Your task to perform on an android device: open app "Adobe Acrobat Reader" Image 0: 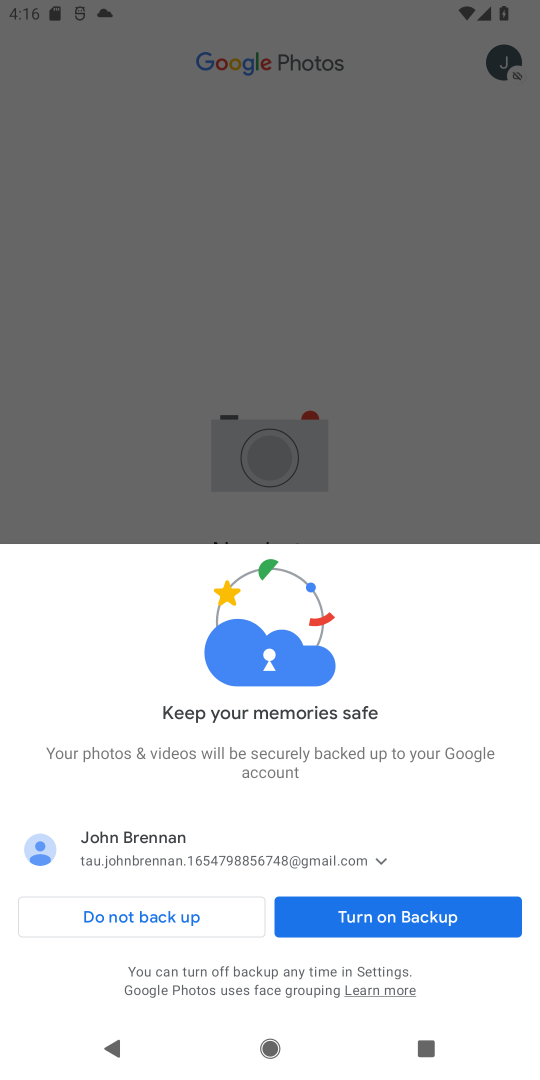
Step 0: press home button
Your task to perform on an android device: open app "Adobe Acrobat Reader" Image 1: 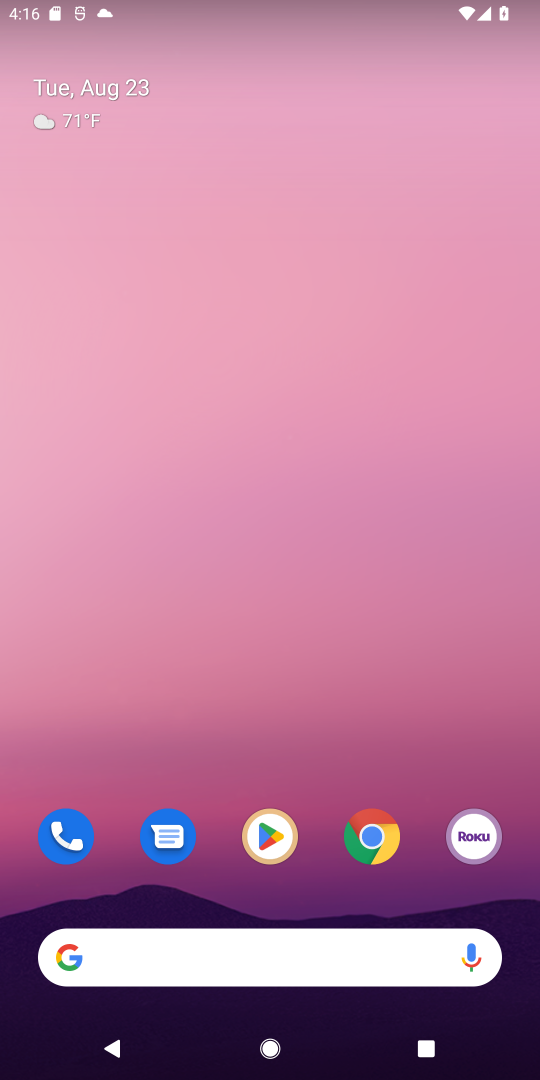
Step 1: click (275, 839)
Your task to perform on an android device: open app "Adobe Acrobat Reader" Image 2: 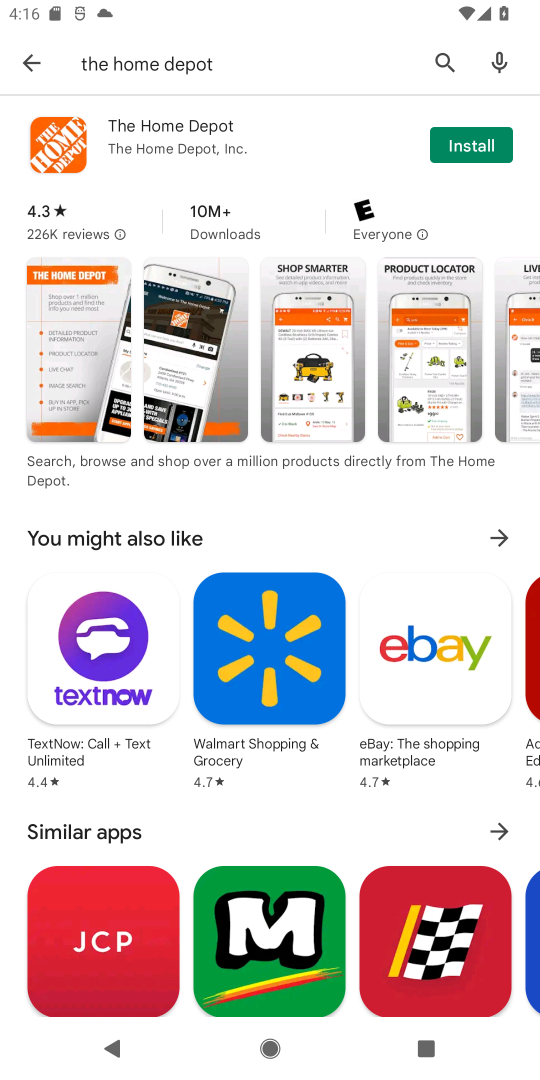
Step 2: click (440, 59)
Your task to perform on an android device: open app "Adobe Acrobat Reader" Image 3: 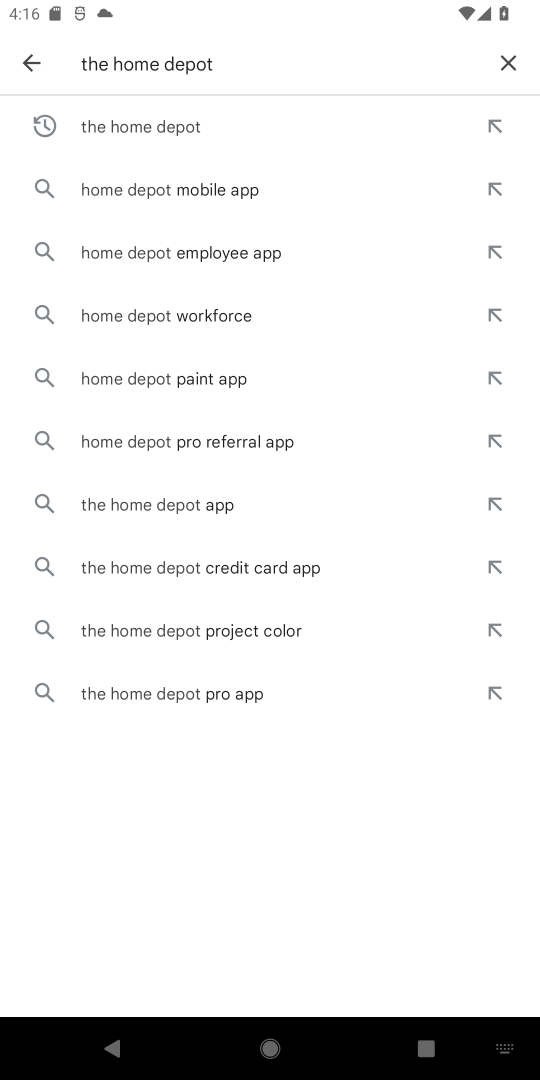
Step 3: click (507, 58)
Your task to perform on an android device: open app "Adobe Acrobat Reader" Image 4: 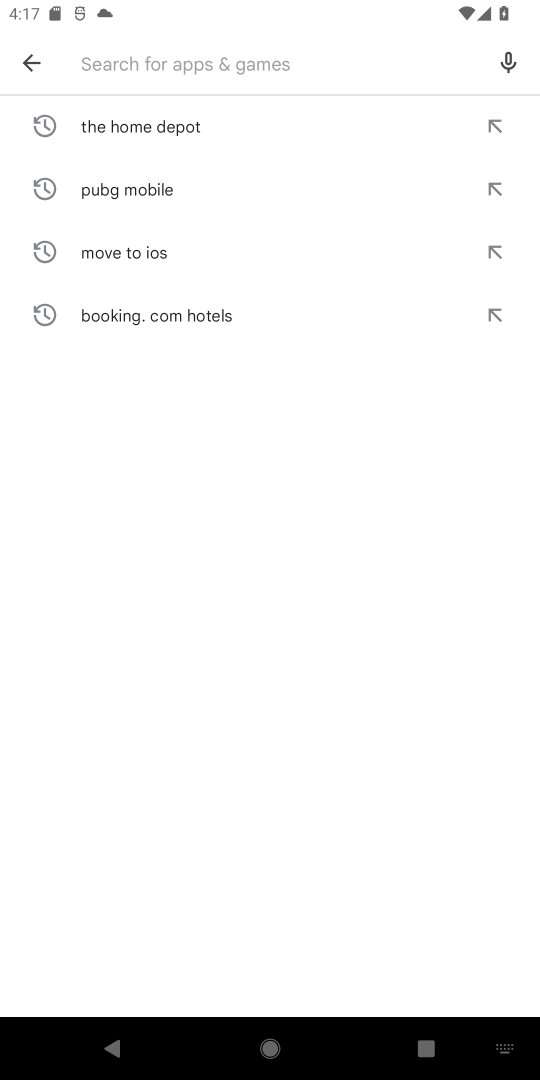
Step 4: type "Adobe Acrobat Reader"
Your task to perform on an android device: open app "Adobe Acrobat Reader" Image 5: 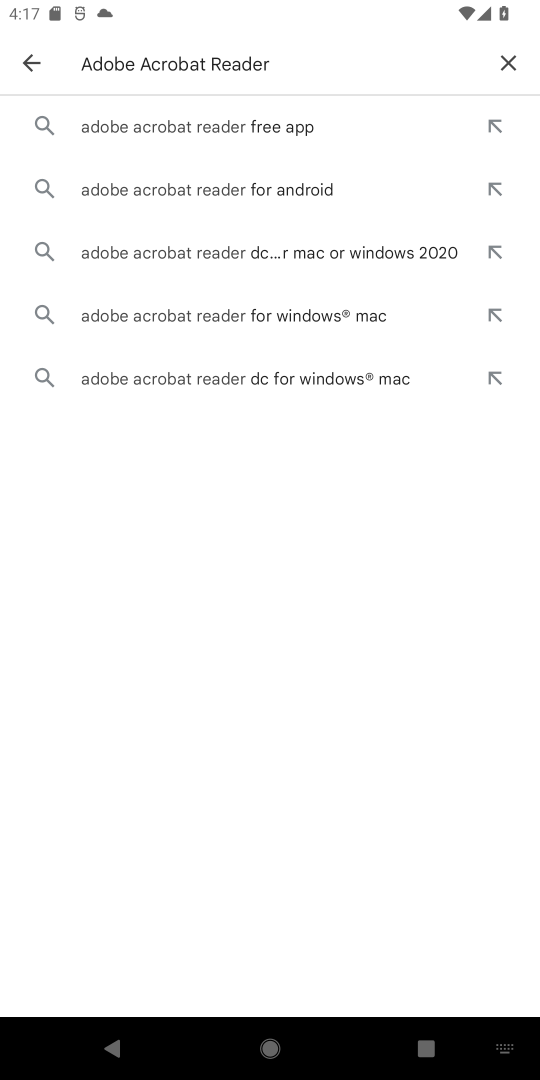
Step 5: click (226, 113)
Your task to perform on an android device: open app "Adobe Acrobat Reader" Image 6: 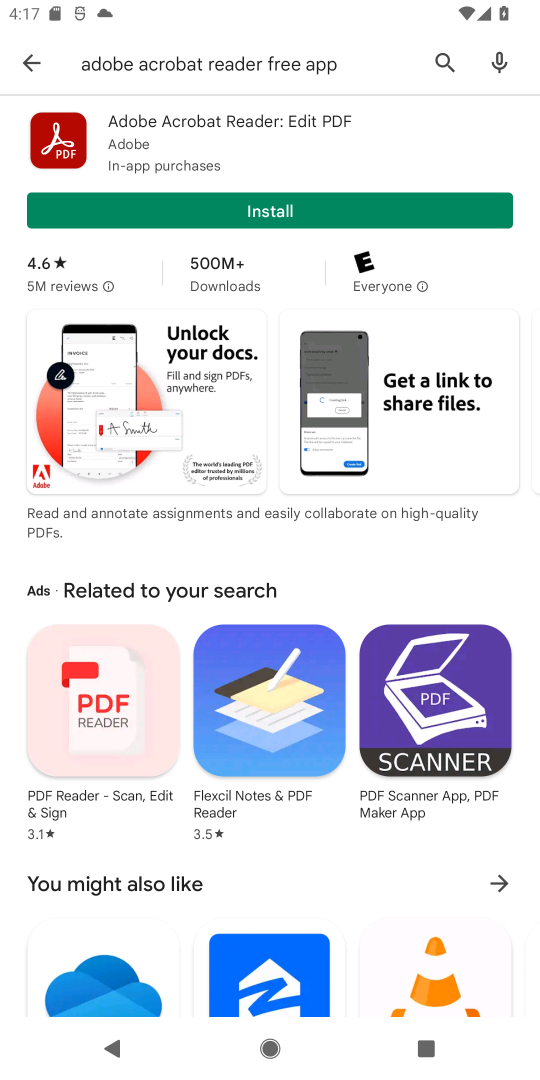
Step 6: task complete